Your task to perform on an android device: toggle show notifications on the lock screen Image 0: 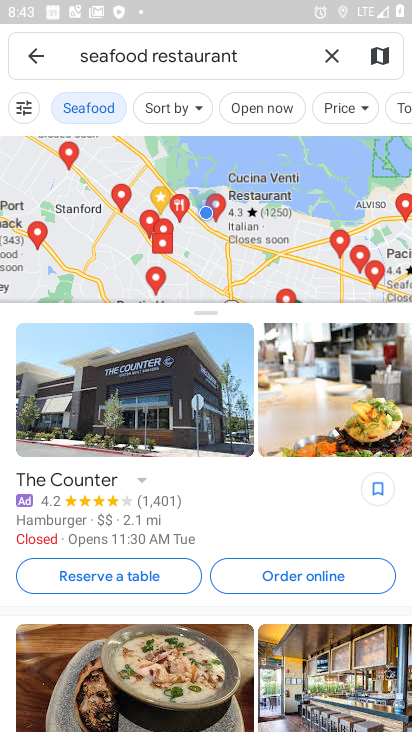
Step 0: press home button
Your task to perform on an android device: toggle show notifications on the lock screen Image 1: 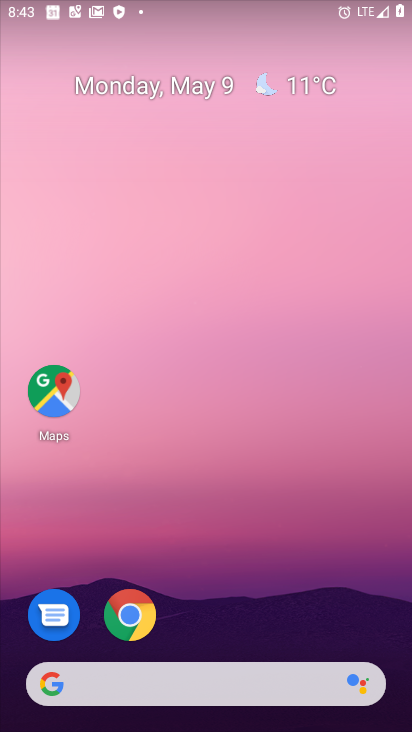
Step 1: drag from (205, 635) to (255, 5)
Your task to perform on an android device: toggle show notifications on the lock screen Image 2: 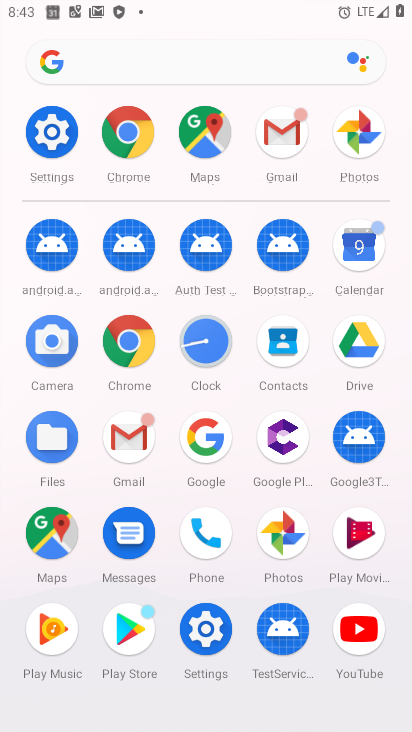
Step 2: click (206, 631)
Your task to perform on an android device: toggle show notifications on the lock screen Image 3: 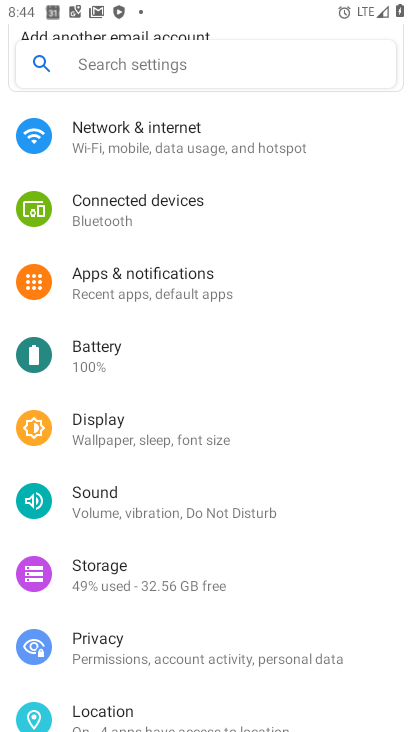
Step 3: click (214, 290)
Your task to perform on an android device: toggle show notifications on the lock screen Image 4: 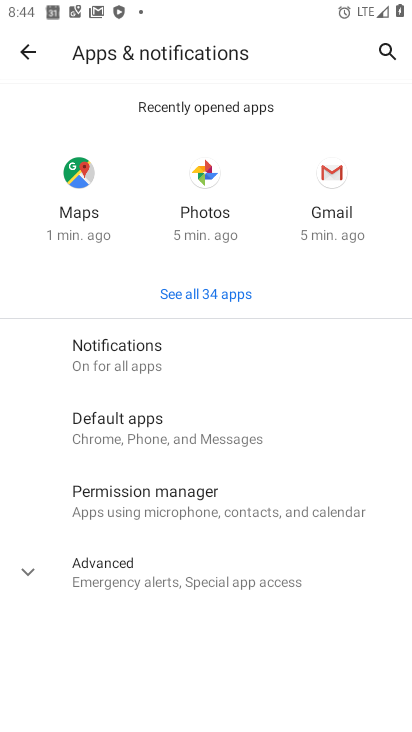
Step 4: click (136, 363)
Your task to perform on an android device: toggle show notifications on the lock screen Image 5: 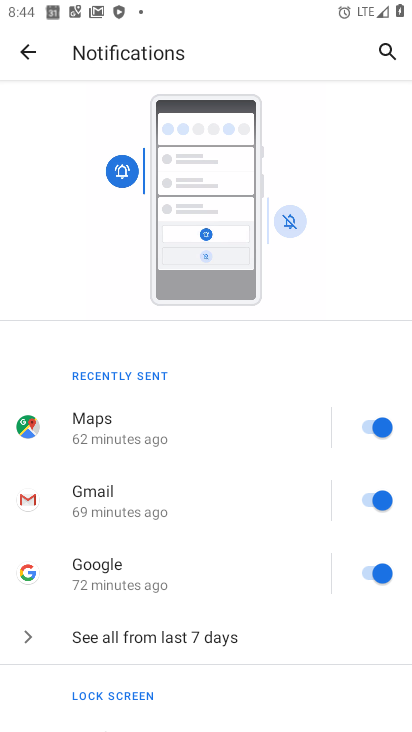
Step 5: drag from (151, 614) to (202, 93)
Your task to perform on an android device: toggle show notifications on the lock screen Image 6: 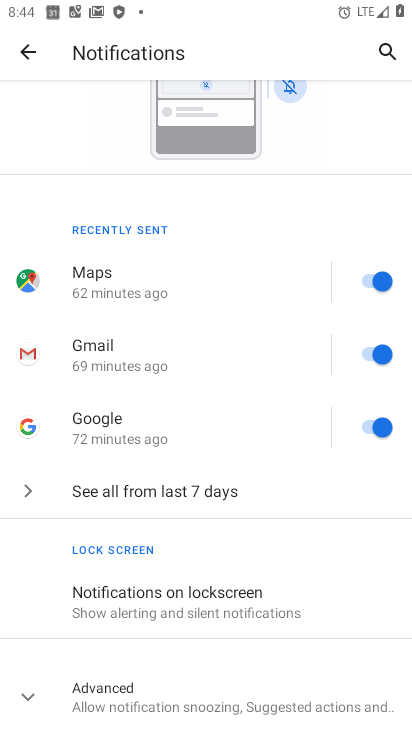
Step 6: click (217, 578)
Your task to perform on an android device: toggle show notifications on the lock screen Image 7: 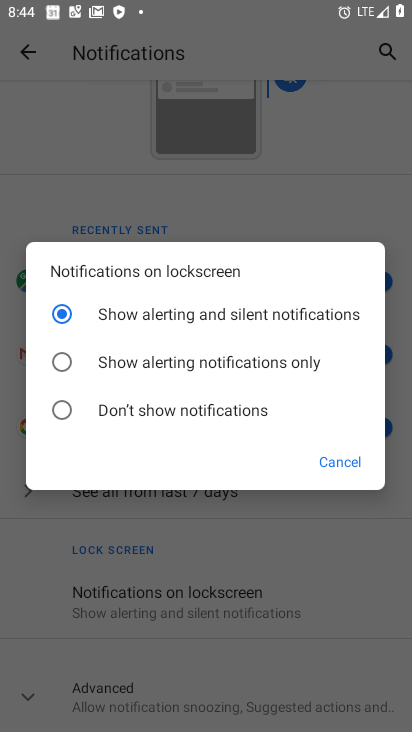
Step 7: task complete